Your task to perform on an android device: Open internet settings Image 0: 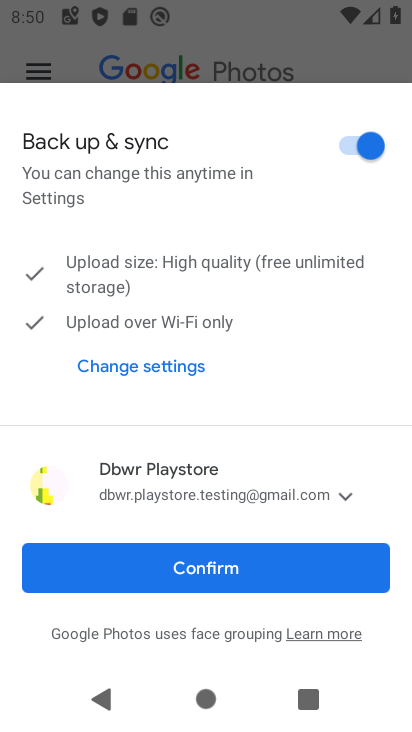
Step 0: press home button
Your task to perform on an android device: Open internet settings Image 1: 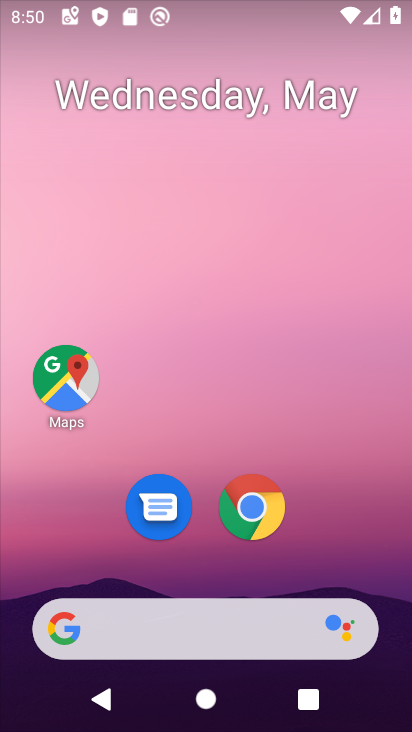
Step 1: drag from (340, 544) to (271, 232)
Your task to perform on an android device: Open internet settings Image 2: 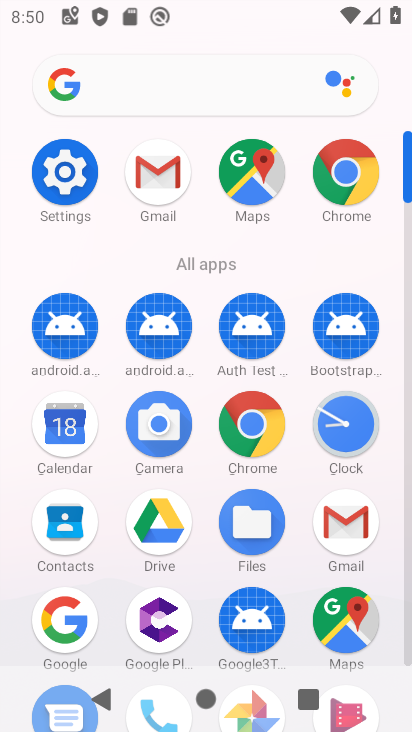
Step 2: click (58, 181)
Your task to perform on an android device: Open internet settings Image 3: 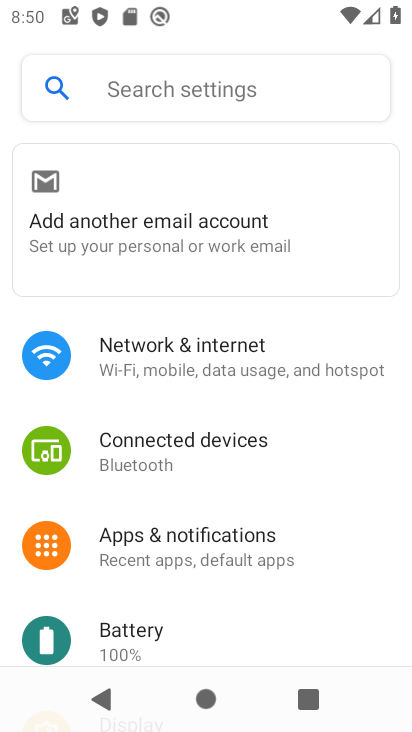
Step 3: click (175, 365)
Your task to perform on an android device: Open internet settings Image 4: 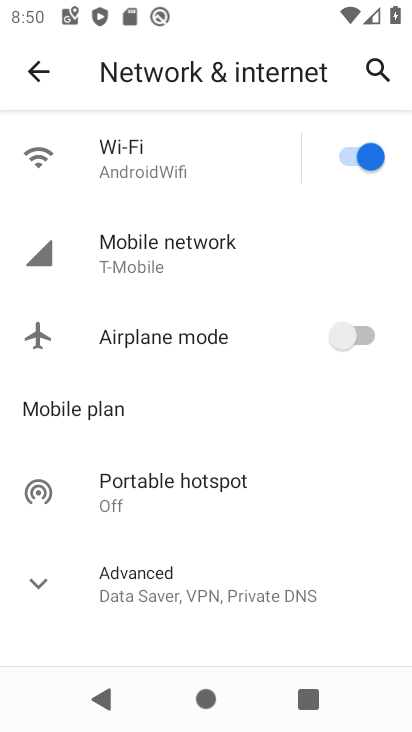
Step 4: task complete